Your task to perform on an android device: move an email to a new category in the gmail app Image 0: 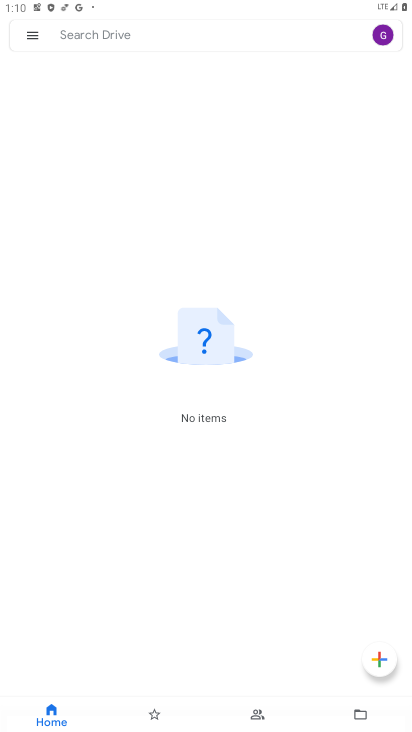
Step 0: press home button
Your task to perform on an android device: move an email to a new category in the gmail app Image 1: 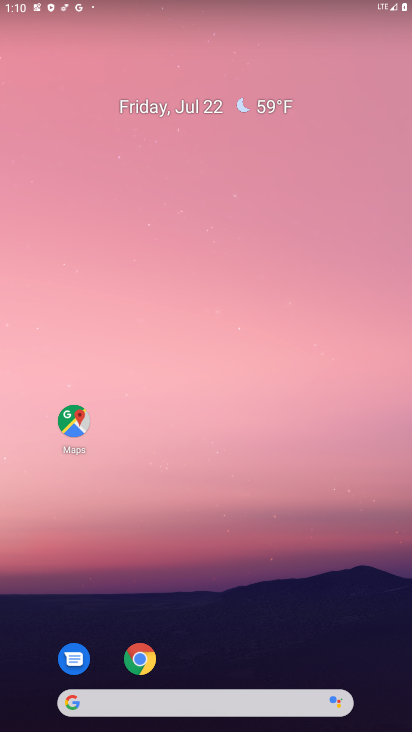
Step 1: drag from (227, 651) to (352, 0)
Your task to perform on an android device: move an email to a new category in the gmail app Image 2: 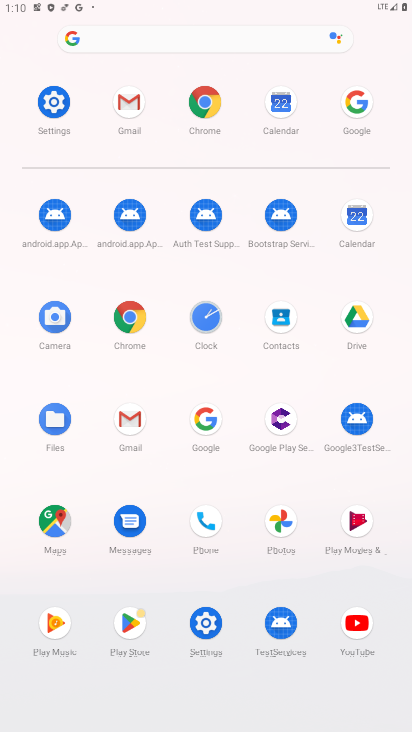
Step 2: click (129, 108)
Your task to perform on an android device: move an email to a new category in the gmail app Image 3: 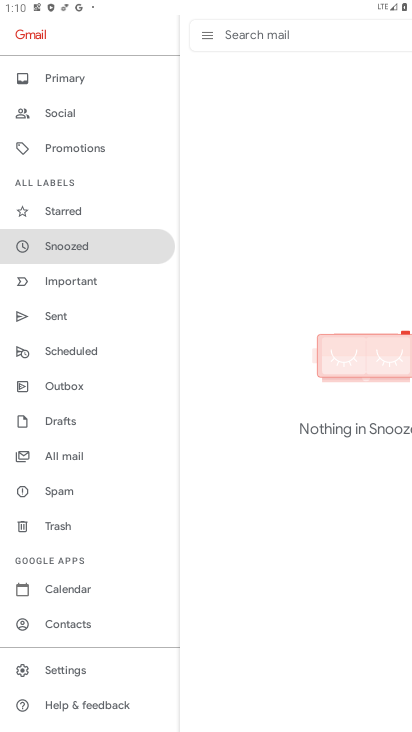
Step 3: drag from (79, 105) to (0, 636)
Your task to perform on an android device: move an email to a new category in the gmail app Image 4: 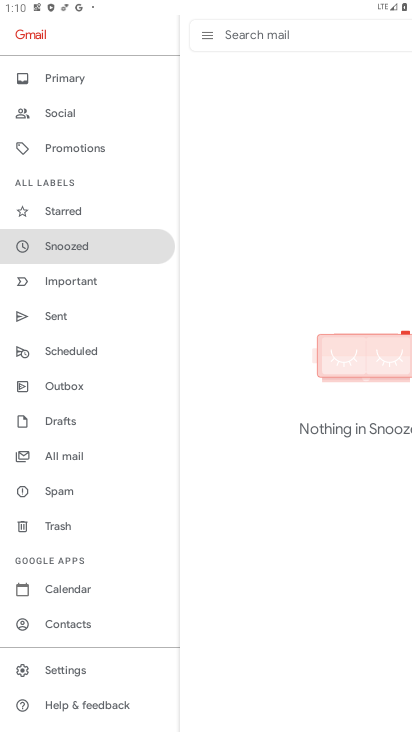
Step 4: drag from (80, 123) to (54, 731)
Your task to perform on an android device: move an email to a new category in the gmail app Image 5: 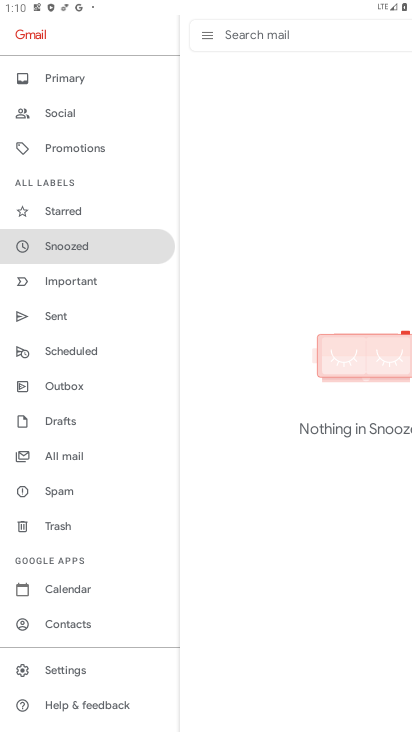
Step 5: click (70, 462)
Your task to perform on an android device: move an email to a new category in the gmail app Image 6: 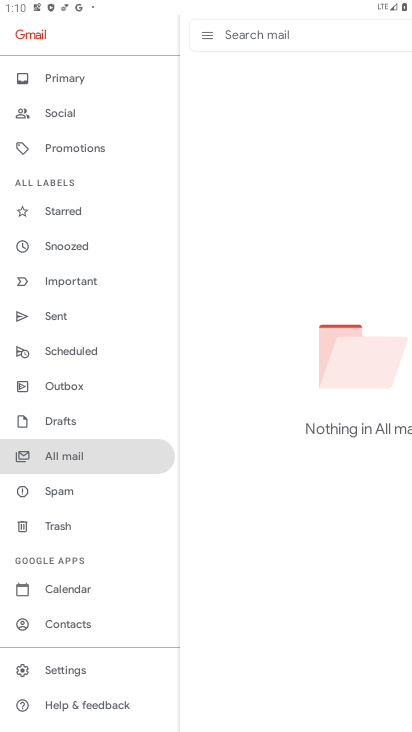
Step 6: task complete